Your task to perform on an android device: turn on the 24-hour format for clock Image 0: 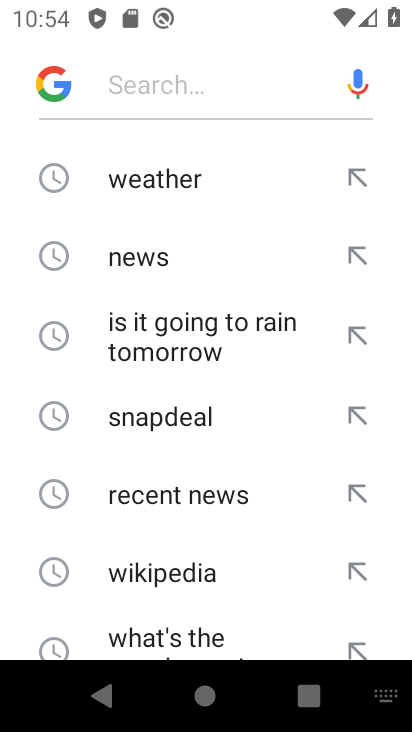
Step 0: press home button
Your task to perform on an android device: turn on the 24-hour format for clock Image 1: 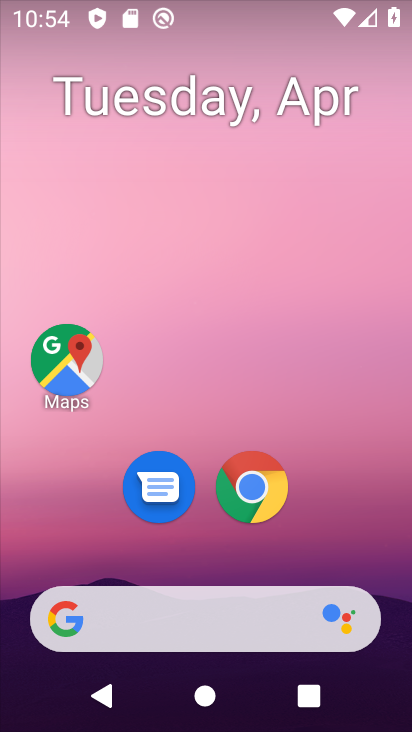
Step 1: drag from (290, 626) to (233, 86)
Your task to perform on an android device: turn on the 24-hour format for clock Image 2: 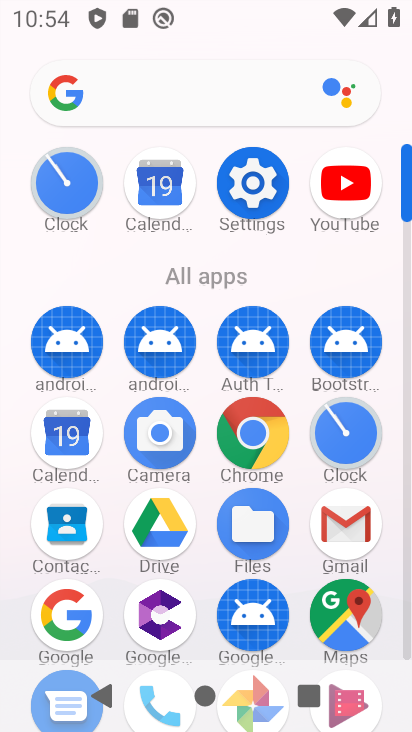
Step 2: click (224, 197)
Your task to perform on an android device: turn on the 24-hour format for clock Image 3: 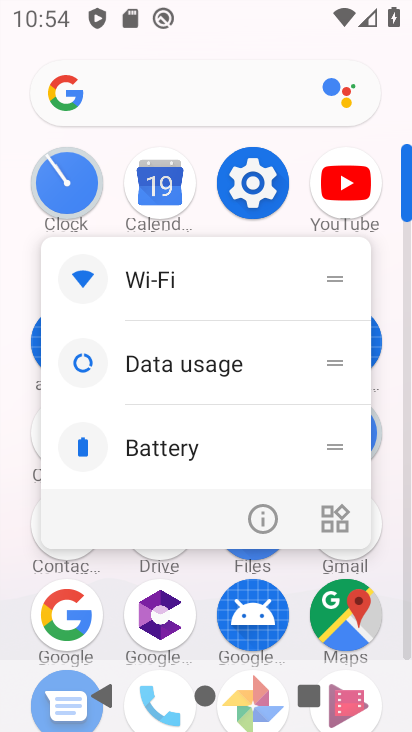
Step 3: click (226, 196)
Your task to perform on an android device: turn on the 24-hour format for clock Image 4: 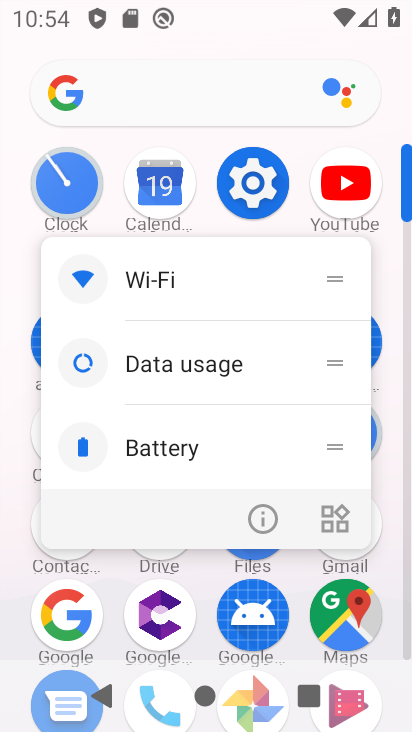
Step 4: click (251, 185)
Your task to perform on an android device: turn on the 24-hour format for clock Image 5: 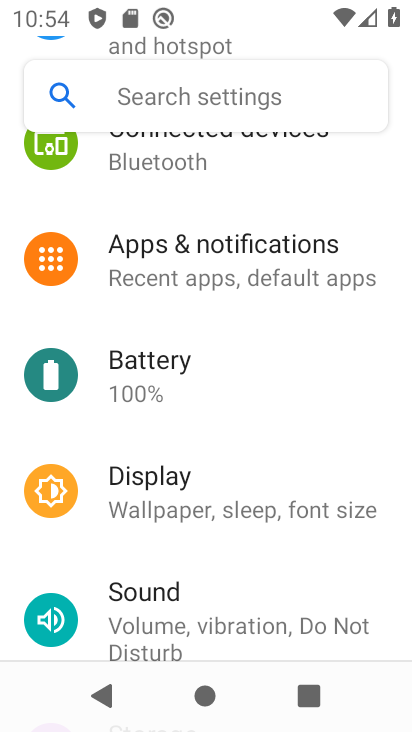
Step 5: drag from (182, 534) to (84, 10)
Your task to perform on an android device: turn on the 24-hour format for clock Image 6: 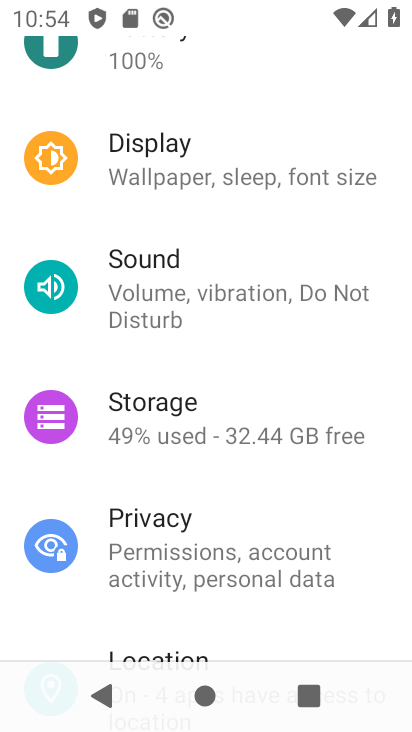
Step 6: drag from (129, 538) to (45, 15)
Your task to perform on an android device: turn on the 24-hour format for clock Image 7: 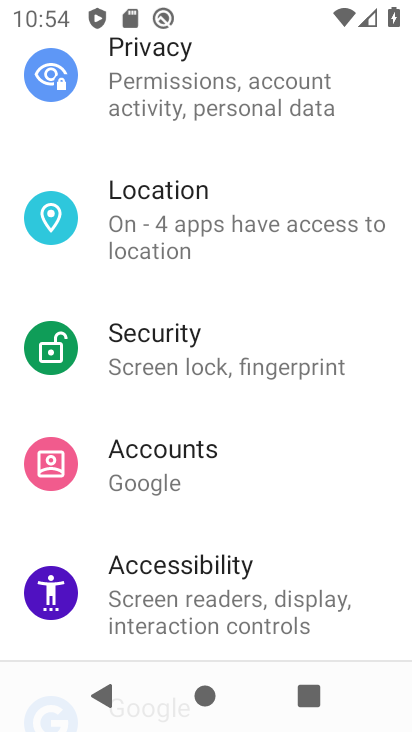
Step 7: drag from (215, 590) to (239, 10)
Your task to perform on an android device: turn on the 24-hour format for clock Image 8: 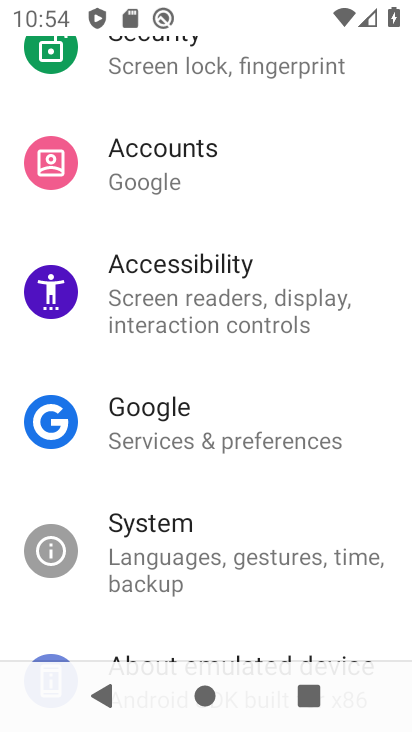
Step 8: click (248, 569)
Your task to perform on an android device: turn on the 24-hour format for clock Image 9: 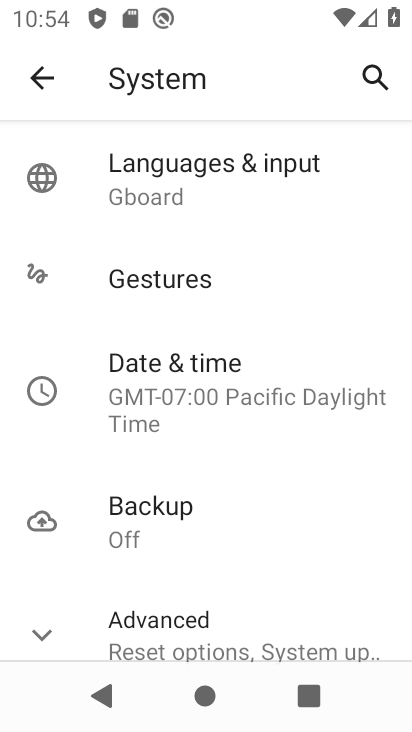
Step 9: click (212, 372)
Your task to perform on an android device: turn on the 24-hour format for clock Image 10: 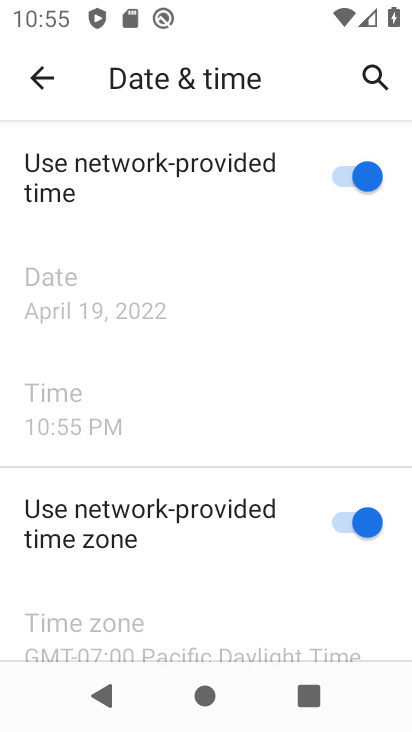
Step 10: drag from (229, 581) to (187, 256)
Your task to perform on an android device: turn on the 24-hour format for clock Image 11: 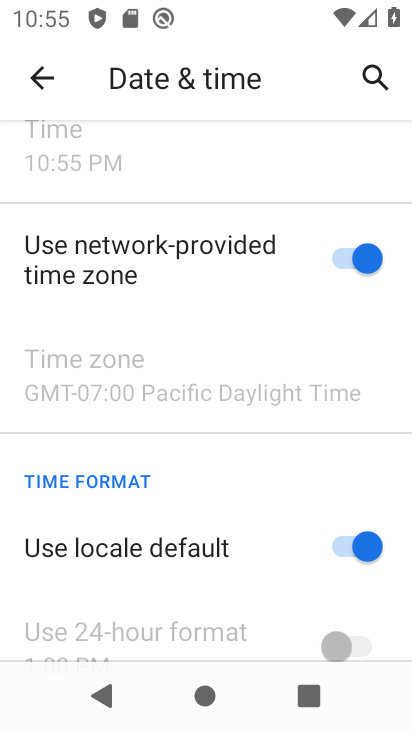
Step 11: click (363, 547)
Your task to perform on an android device: turn on the 24-hour format for clock Image 12: 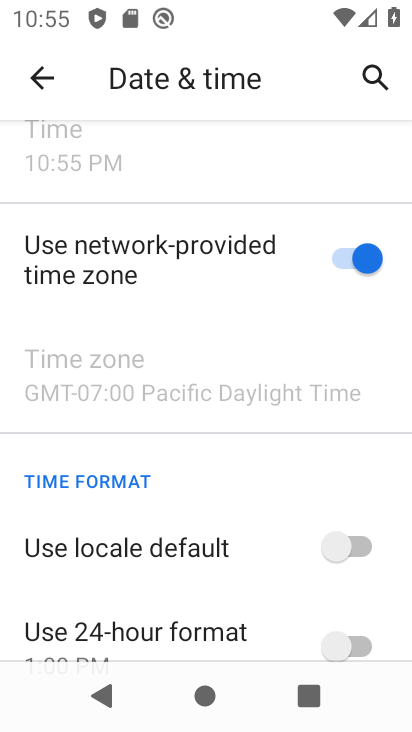
Step 12: click (352, 641)
Your task to perform on an android device: turn on the 24-hour format for clock Image 13: 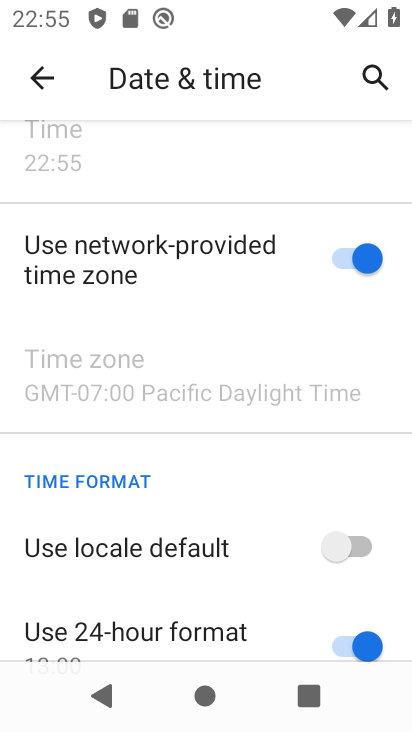
Step 13: task complete